Your task to perform on an android device: turn smart compose on in the gmail app Image 0: 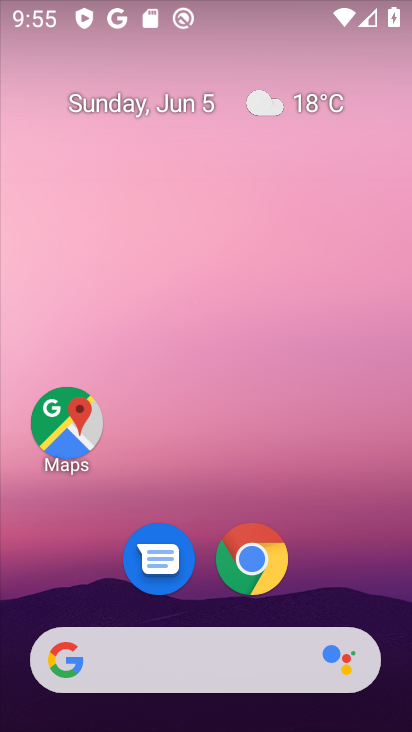
Step 0: drag from (392, 696) to (339, 85)
Your task to perform on an android device: turn smart compose on in the gmail app Image 1: 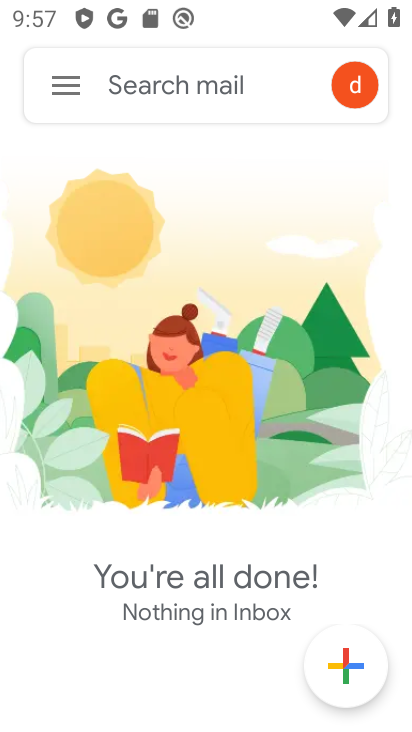
Step 1: click (65, 66)
Your task to perform on an android device: turn smart compose on in the gmail app Image 2: 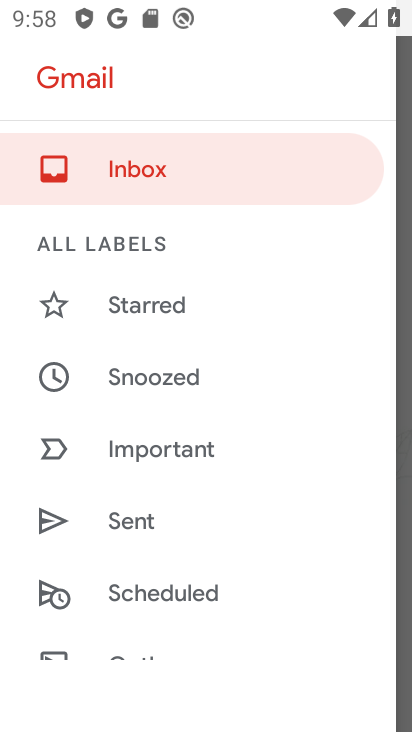
Step 2: drag from (222, 638) to (174, 237)
Your task to perform on an android device: turn smart compose on in the gmail app Image 3: 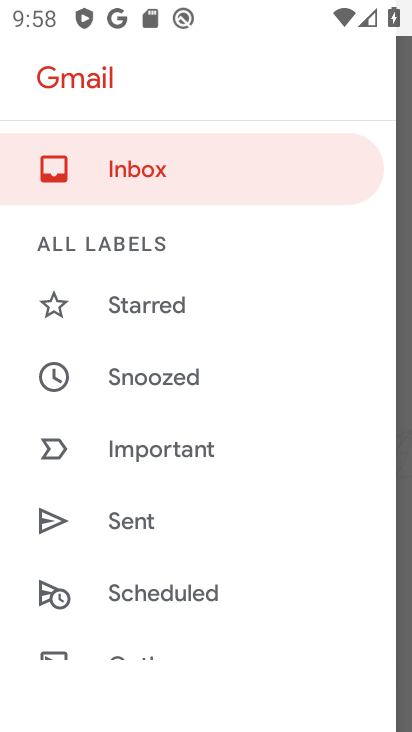
Step 3: drag from (267, 611) to (259, 227)
Your task to perform on an android device: turn smart compose on in the gmail app Image 4: 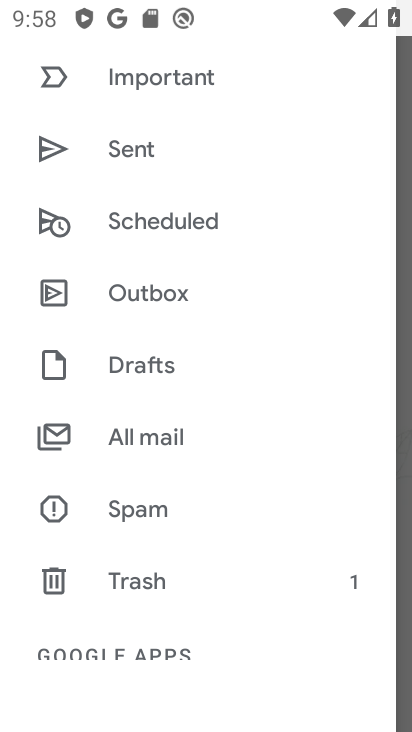
Step 4: drag from (266, 547) to (272, 63)
Your task to perform on an android device: turn smart compose on in the gmail app Image 5: 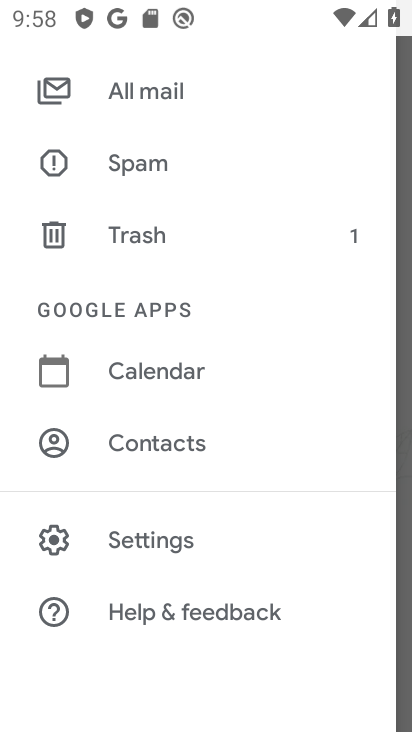
Step 5: click (141, 541)
Your task to perform on an android device: turn smart compose on in the gmail app Image 6: 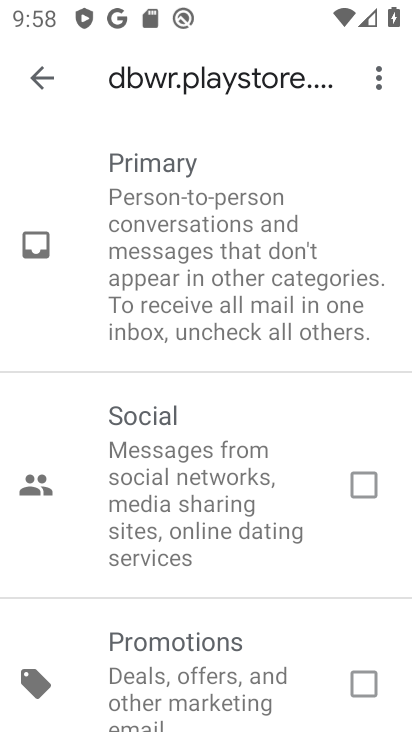
Step 6: click (28, 84)
Your task to perform on an android device: turn smart compose on in the gmail app Image 7: 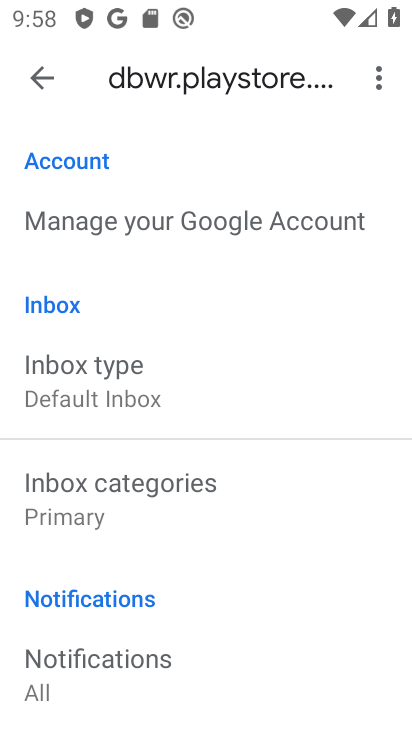
Step 7: task complete